Your task to perform on an android device: turn off sleep mode Image 0: 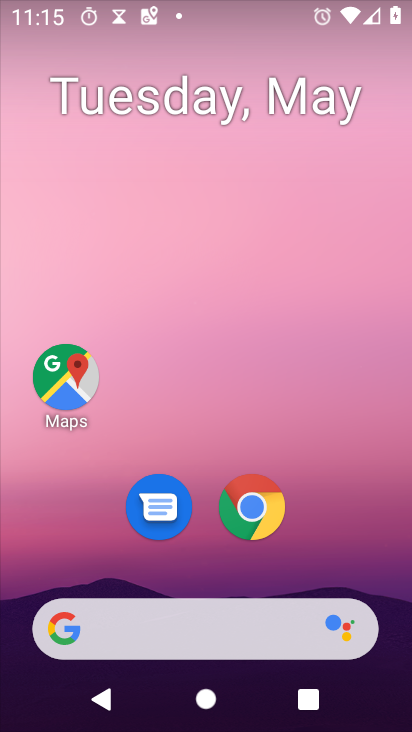
Step 0: drag from (18, 607) to (309, 210)
Your task to perform on an android device: turn off sleep mode Image 1: 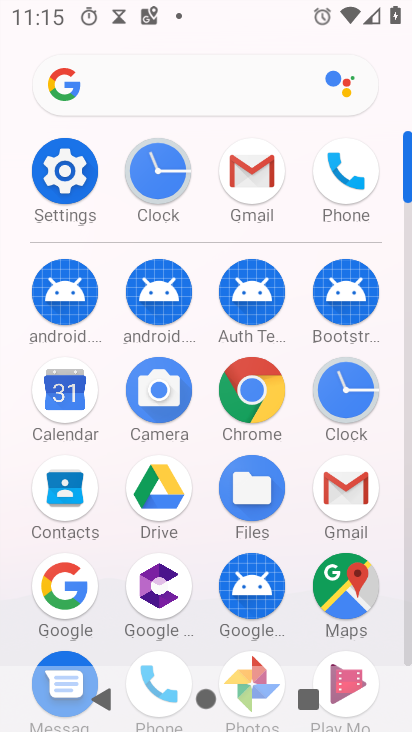
Step 1: click (72, 173)
Your task to perform on an android device: turn off sleep mode Image 2: 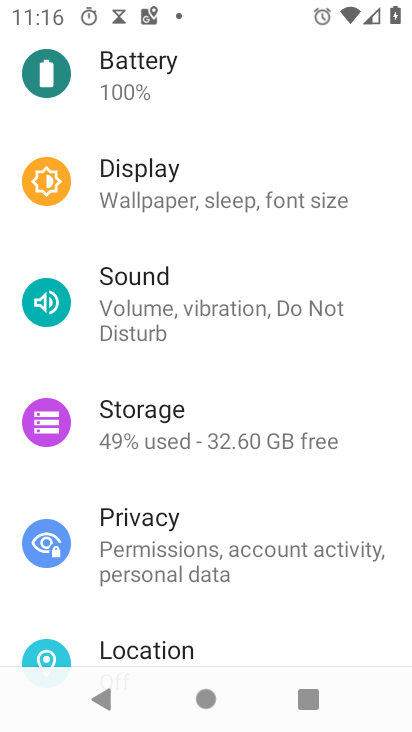
Step 2: click (215, 201)
Your task to perform on an android device: turn off sleep mode Image 3: 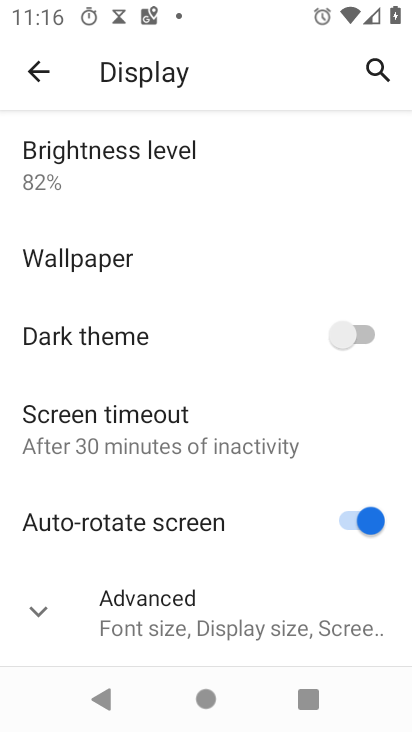
Step 3: task complete